Your task to perform on an android device: change the upload size in google photos Image 0: 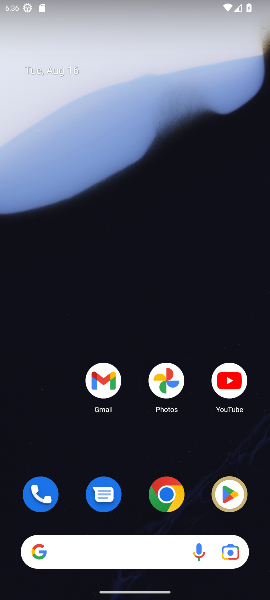
Step 0: drag from (55, 413) to (93, 138)
Your task to perform on an android device: change the upload size in google photos Image 1: 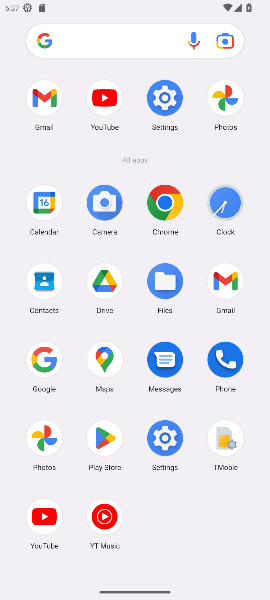
Step 1: task complete